Your task to perform on an android device: Show me popular videos on Youtube Image 0: 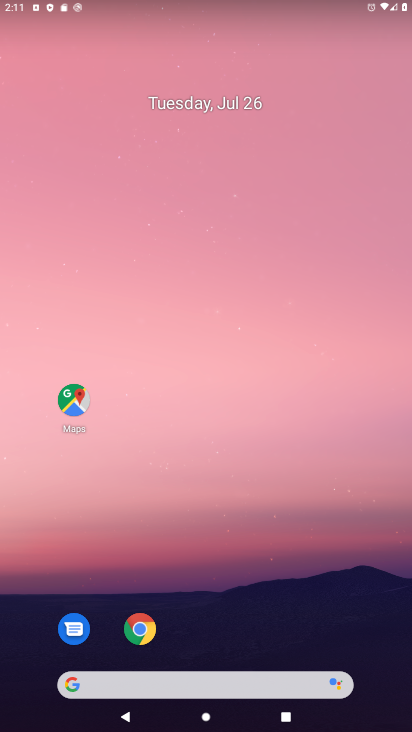
Step 0: drag from (395, 679) to (337, 216)
Your task to perform on an android device: Show me popular videos on Youtube Image 1: 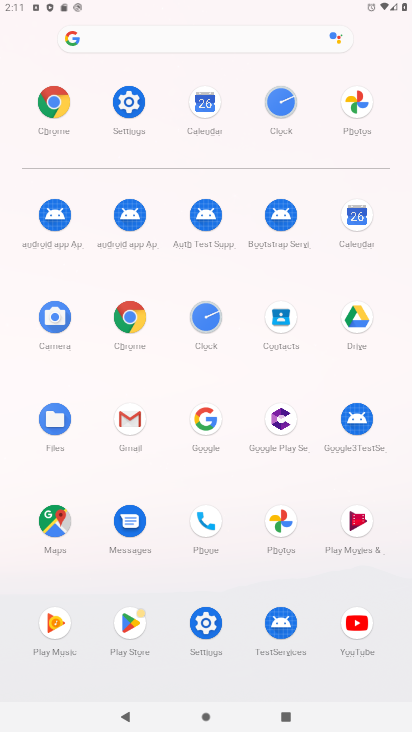
Step 1: click (357, 625)
Your task to perform on an android device: Show me popular videos on Youtube Image 2: 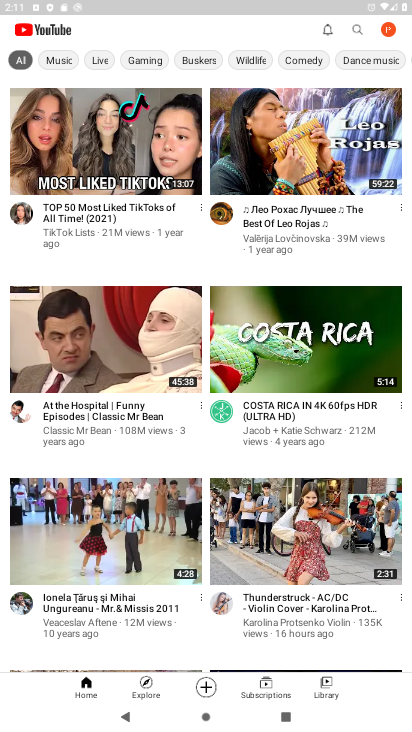
Step 2: click (141, 689)
Your task to perform on an android device: Show me popular videos on Youtube Image 3: 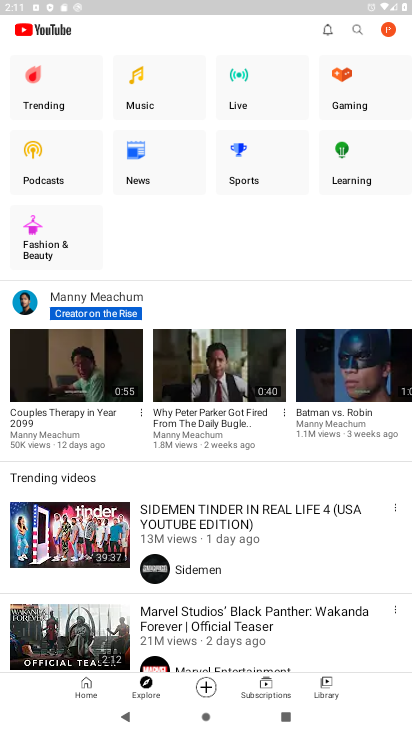
Step 3: click (35, 80)
Your task to perform on an android device: Show me popular videos on Youtube Image 4: 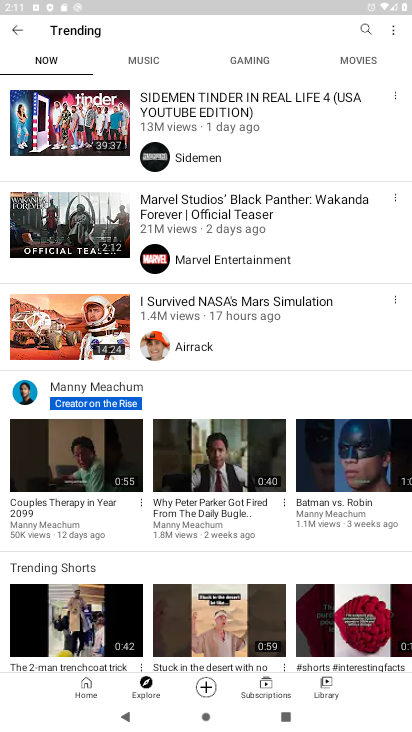
Step 4: task complete